Your task to perform on an android device: Search for the best selling TV on Best Buy. Image 0: 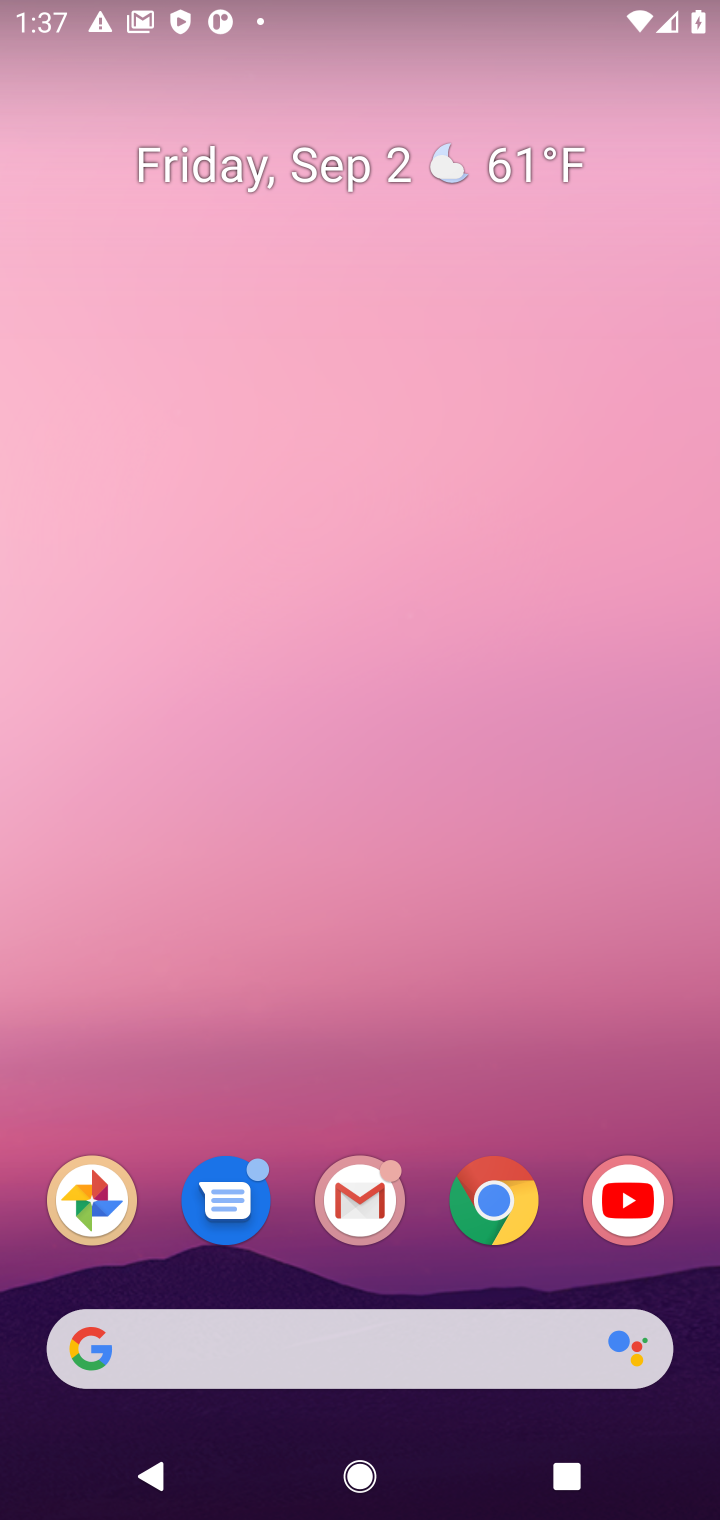
Step 0: click (502, 1206)
Your task to perform on an android device: Search for the best selling TV on Best Buy. Image 1: 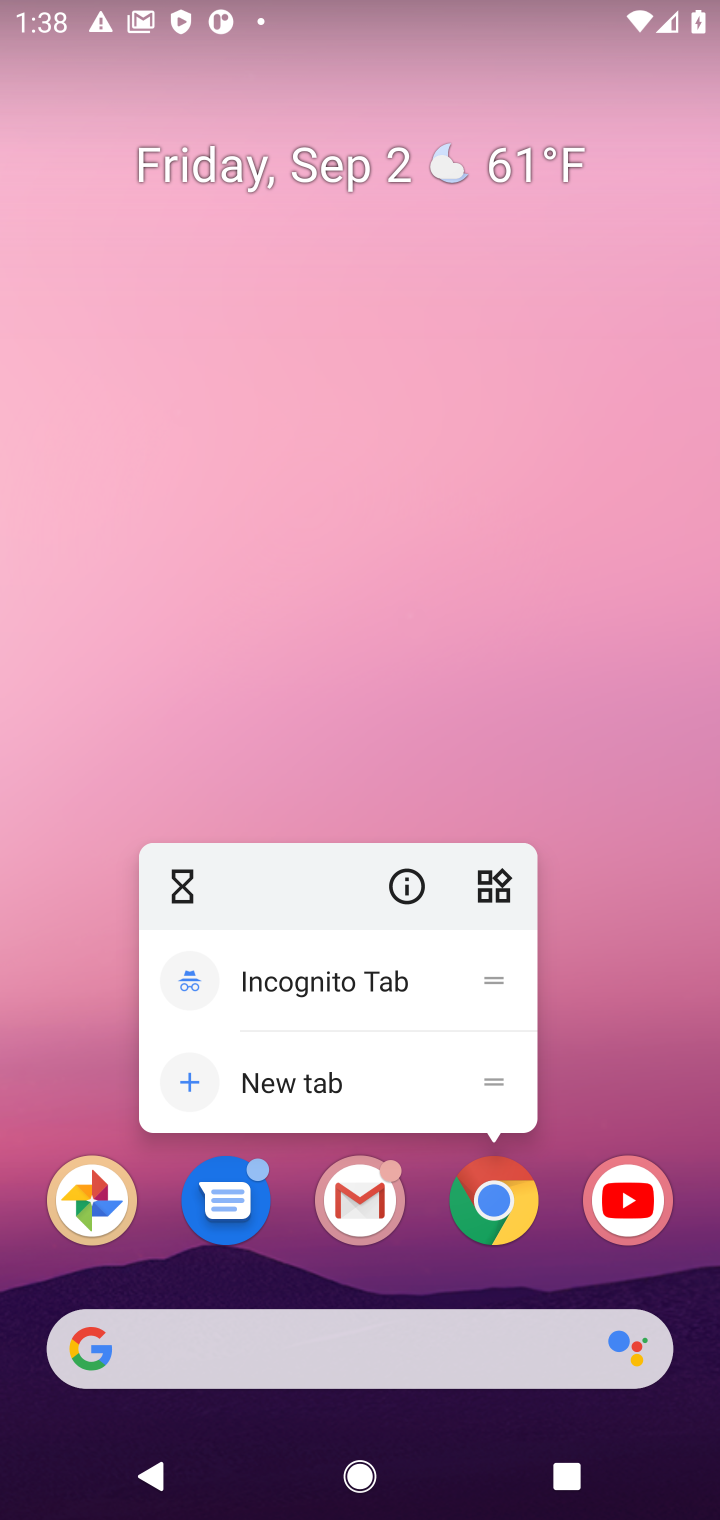
Step 1: click (497, 1213)
Your task to perform on an android device: Search for the best selling TV on Best Buy. Image 2: 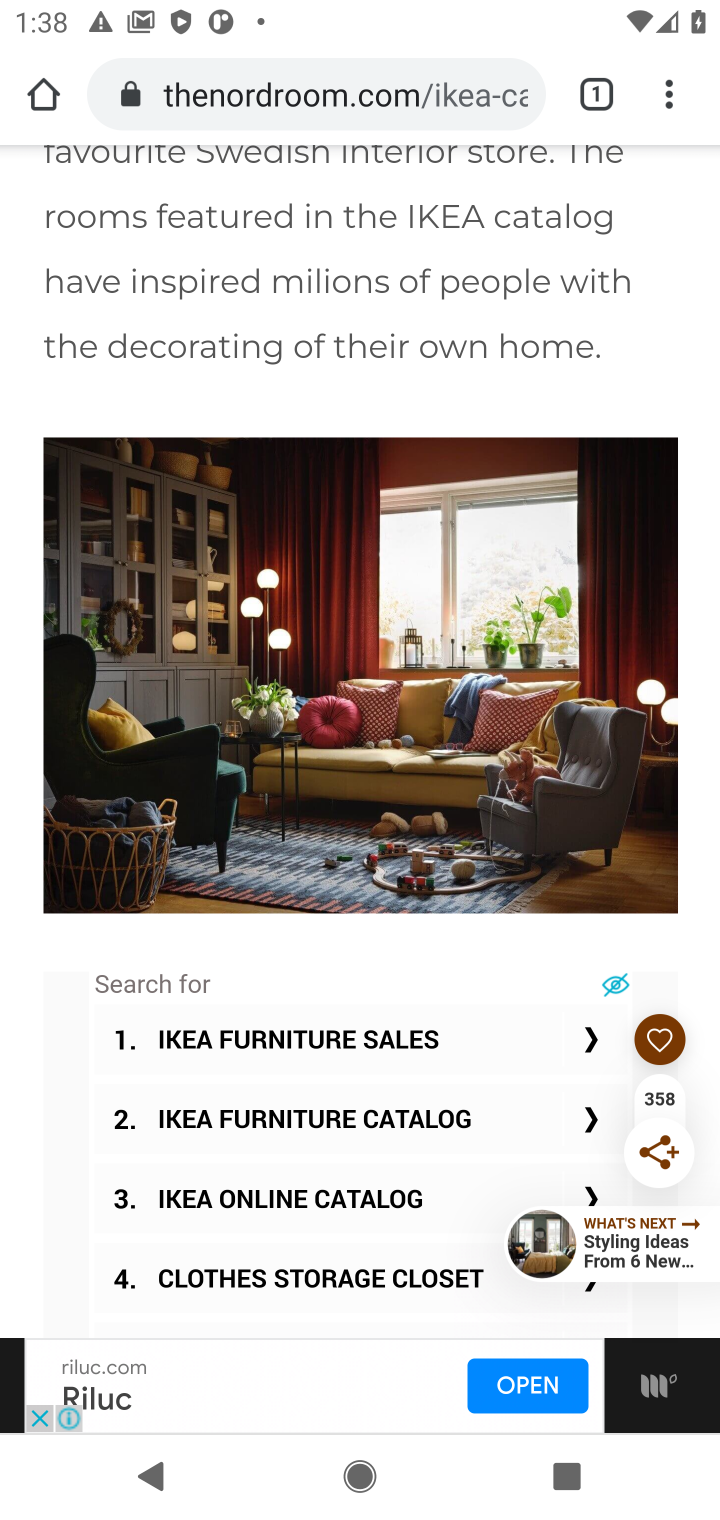
Step 2: click (401, 101)
Your task to perform on an android device: Search for the best selling TV on Best Buy. Image 3: 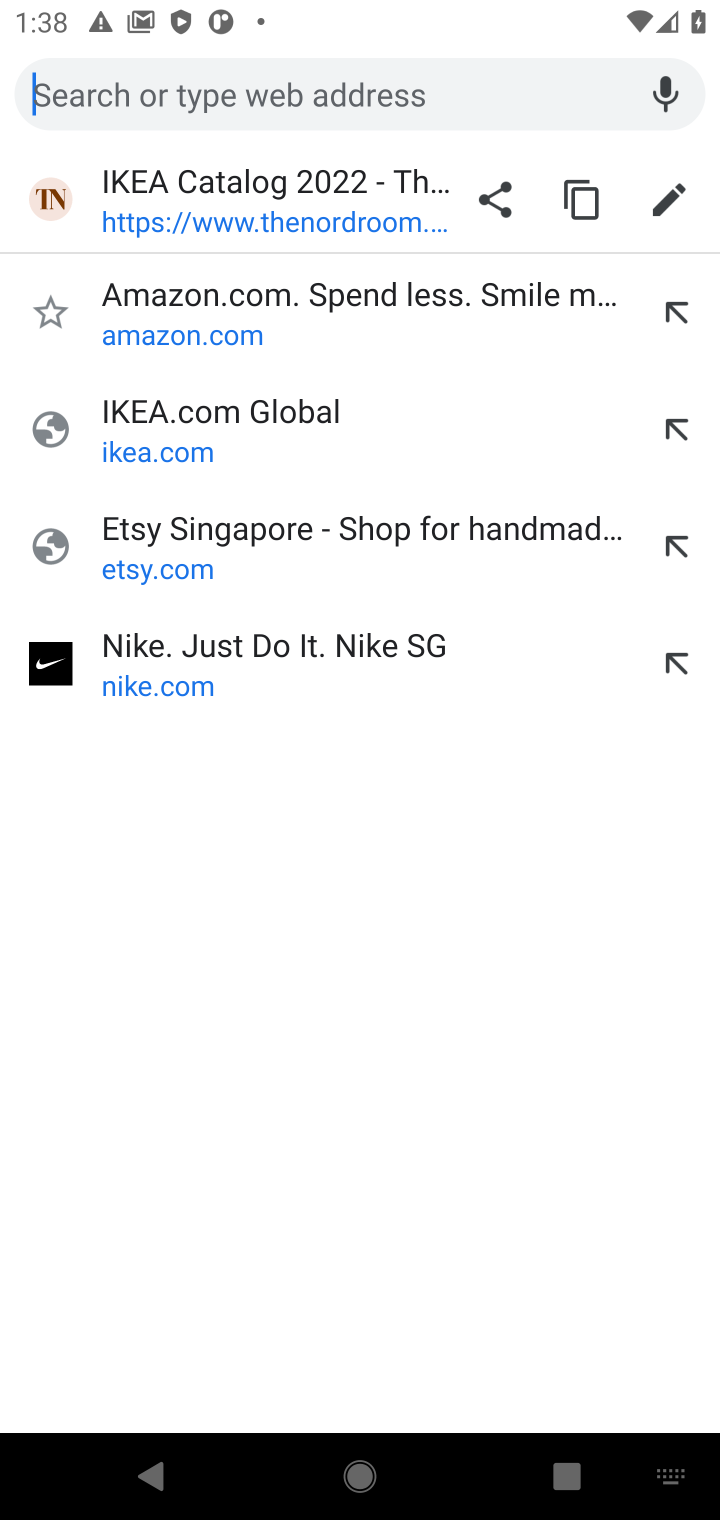
Step 3: type "Best Buy"
Your task to perform on an android device: Search for the best selling TV on Best Buy. Image 4: 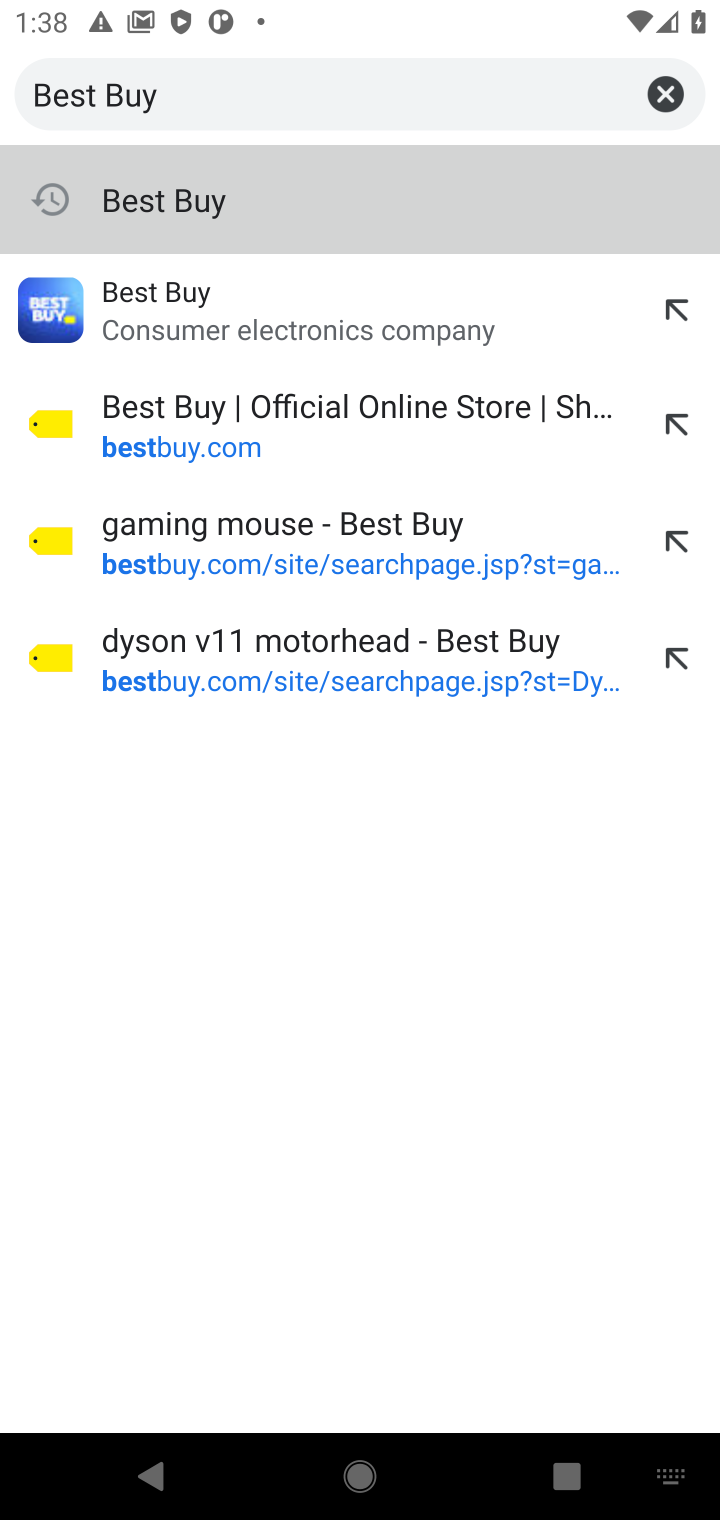
Step 4: press enter
Your task to perform on an android device: Search for the best selling TV on Best Buy. Image 5: 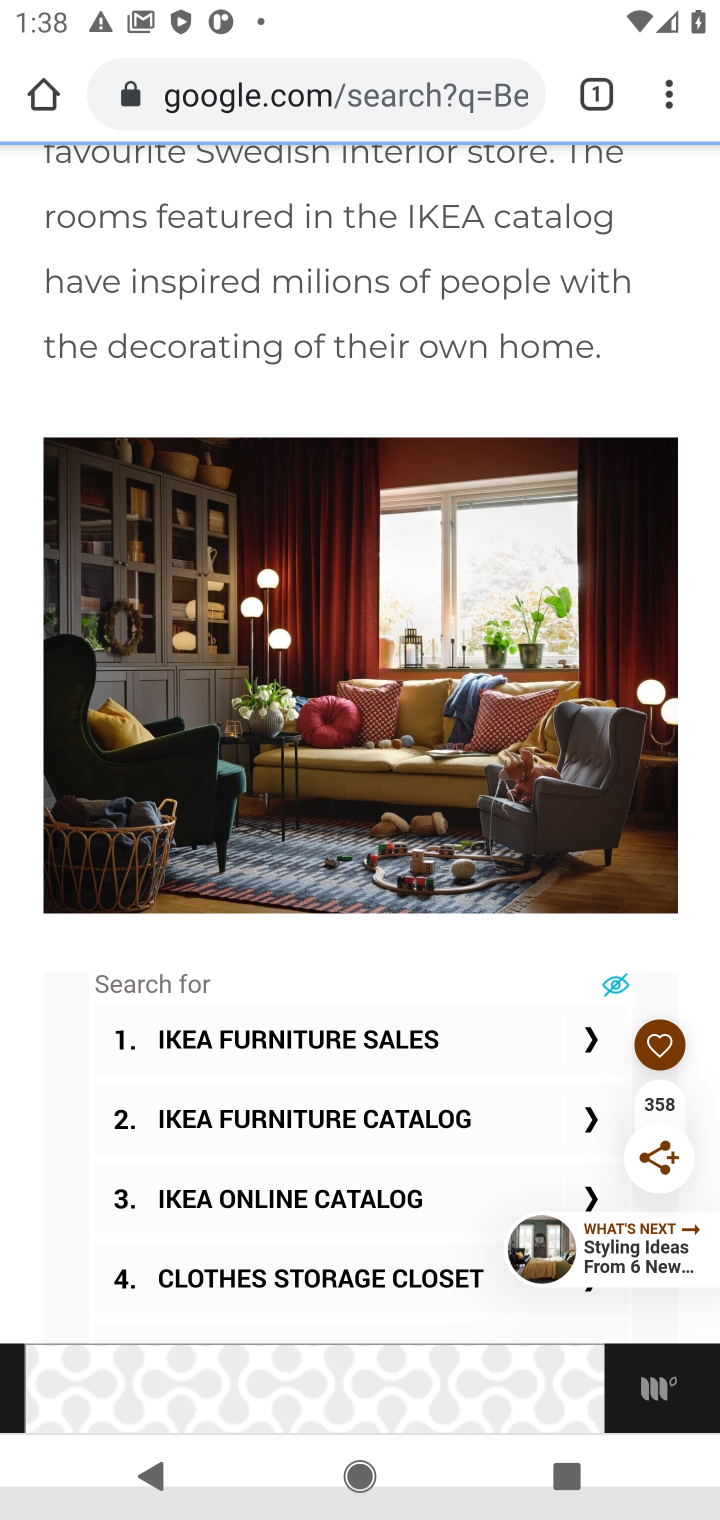
Step 5: click (286, 219)
Your task to perform on an android device: Search for the best selling TV on Best Buy. Image 6: 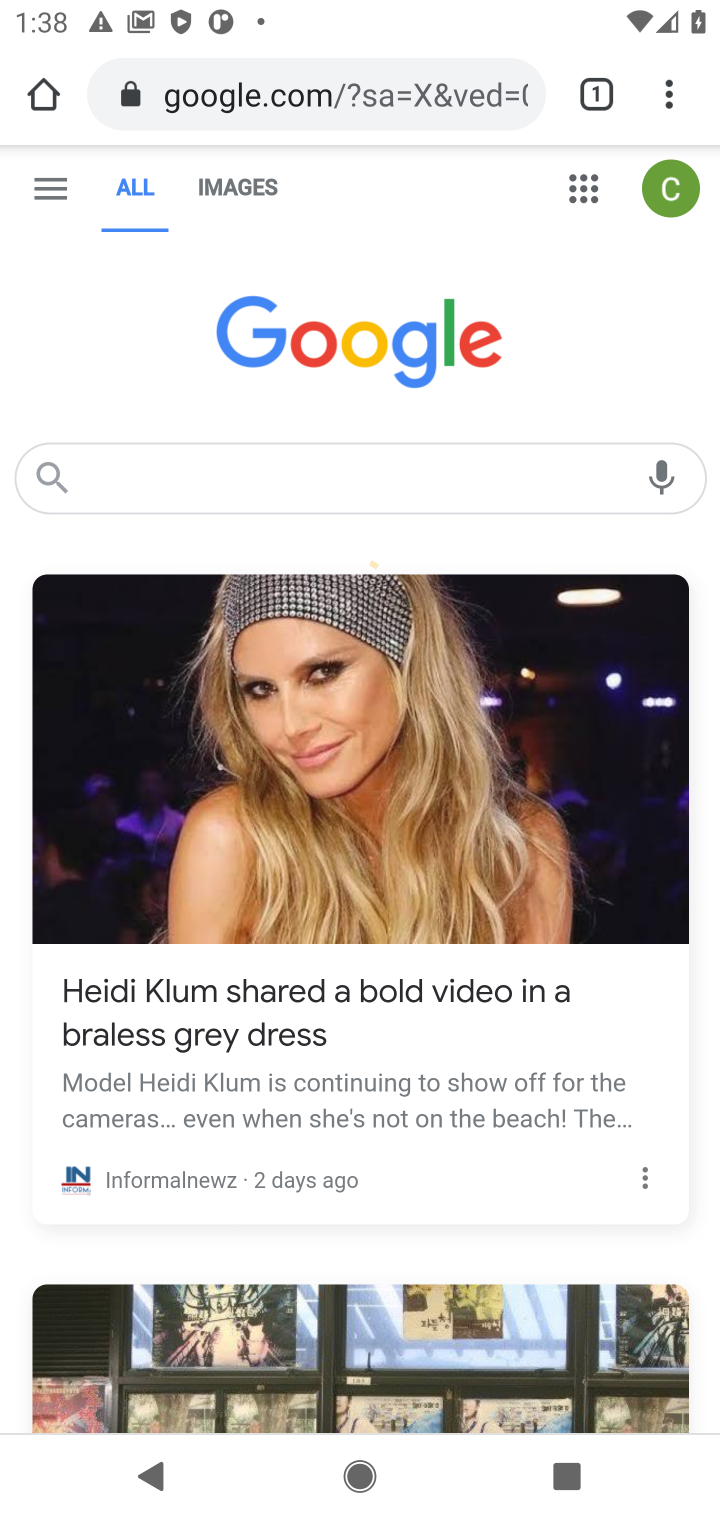
Step 6: press back button
Your task to perform on an android device: Search for the best selling TV on Best Buy. Image 7: 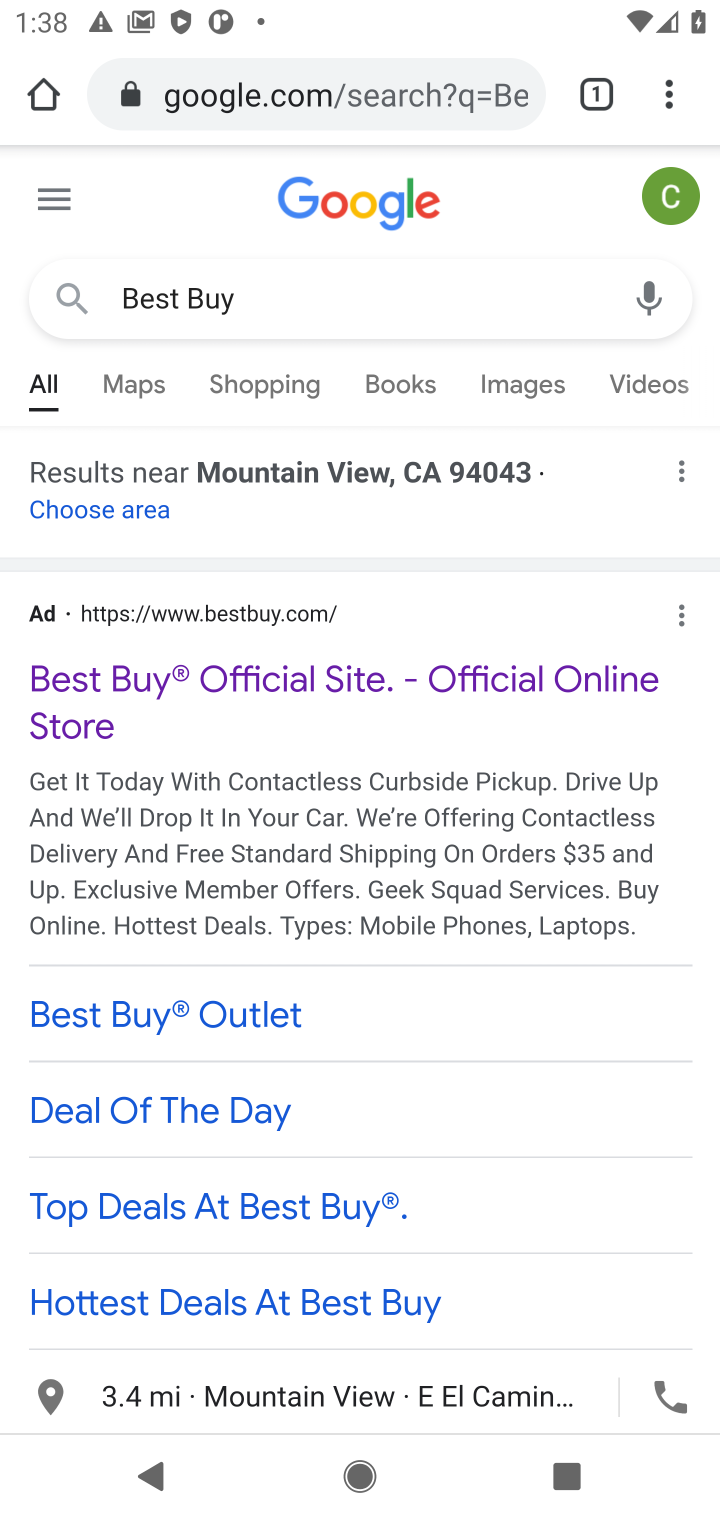
Step 7: drag from (273, 1020) to (583, 272)
Your task to perform on an android device: Search for the best selling TV on Best Buy. Image 8: 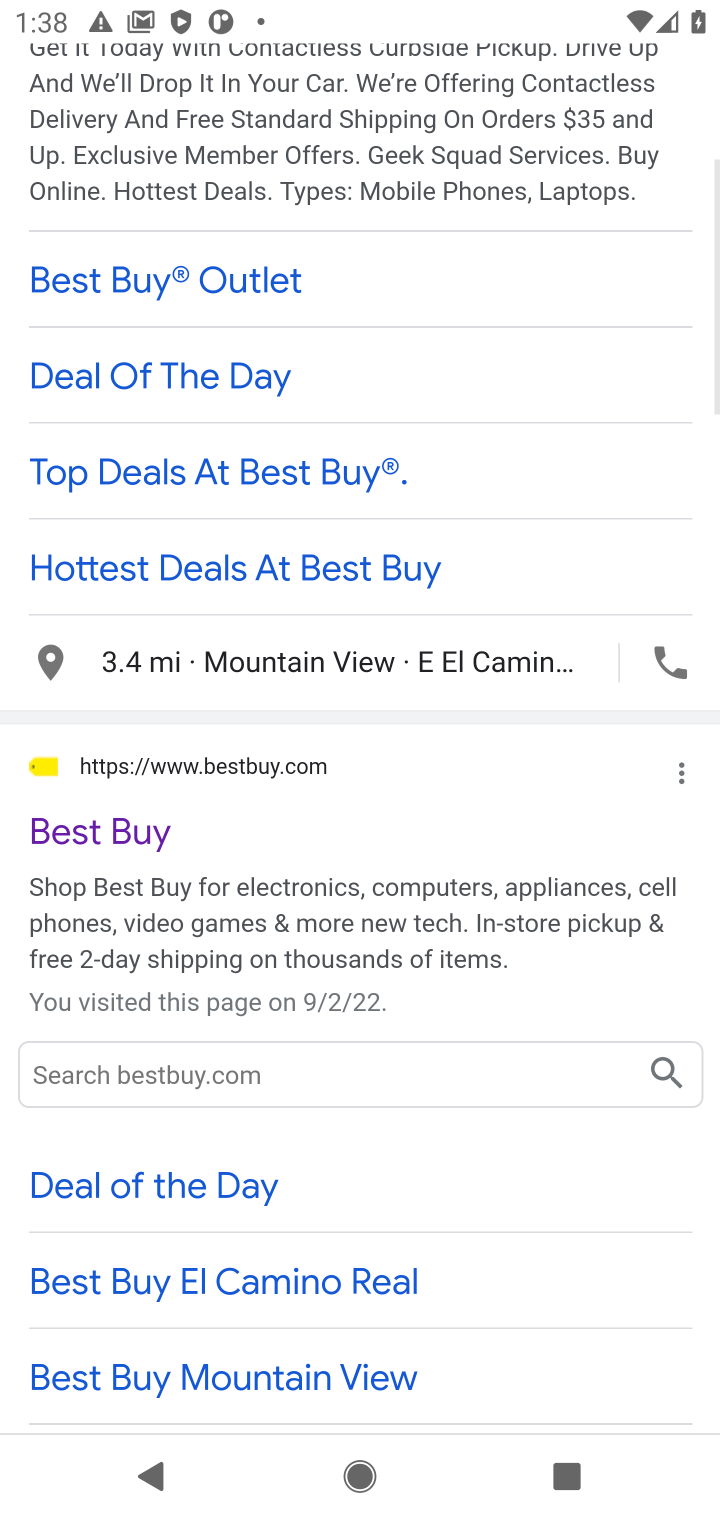
Step 8: click (118, 827)
Your task to perform on an android device: Search for the best selling TV on Best Buy. Image 9: 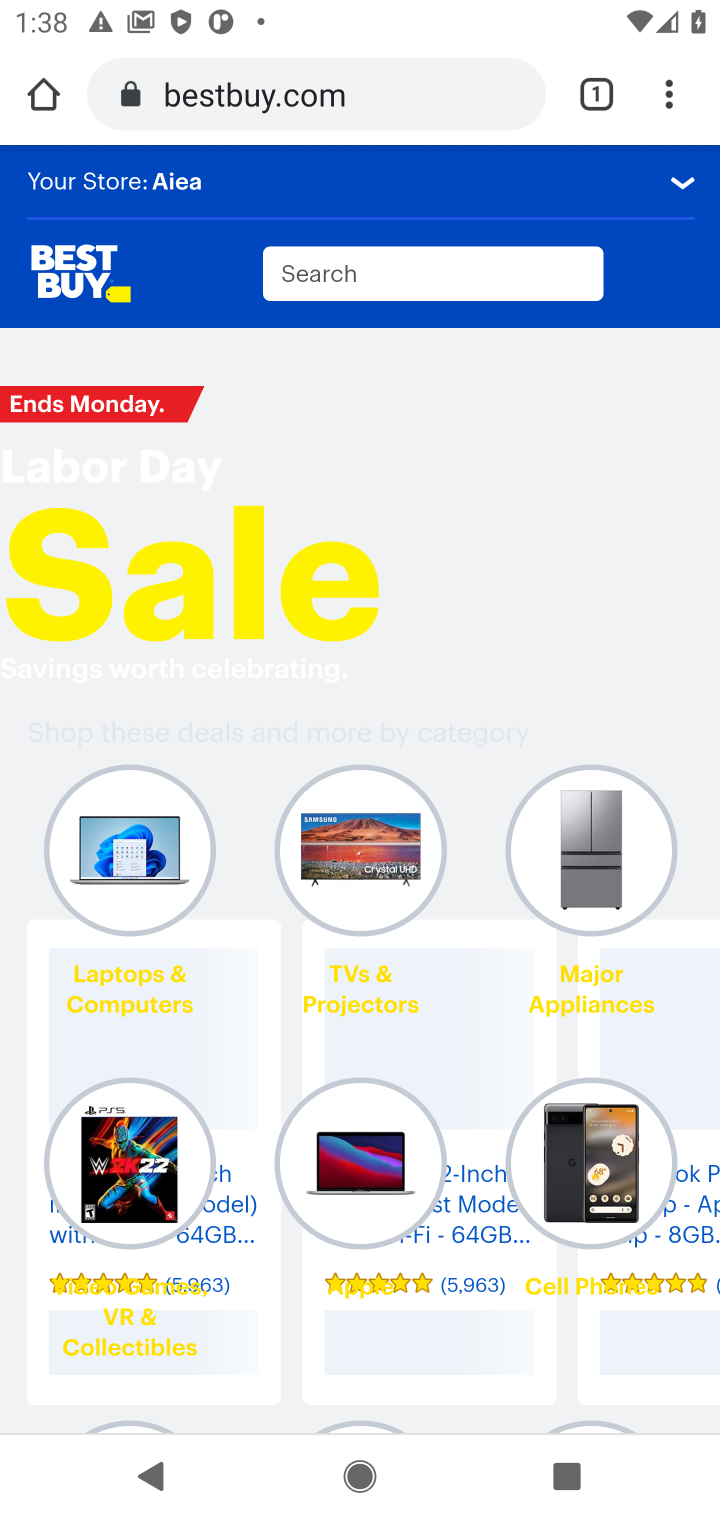
Step 9: click (453, 283)
Your task to perform on an android device: Search for the best selling TV on Best Buy. Image 10: 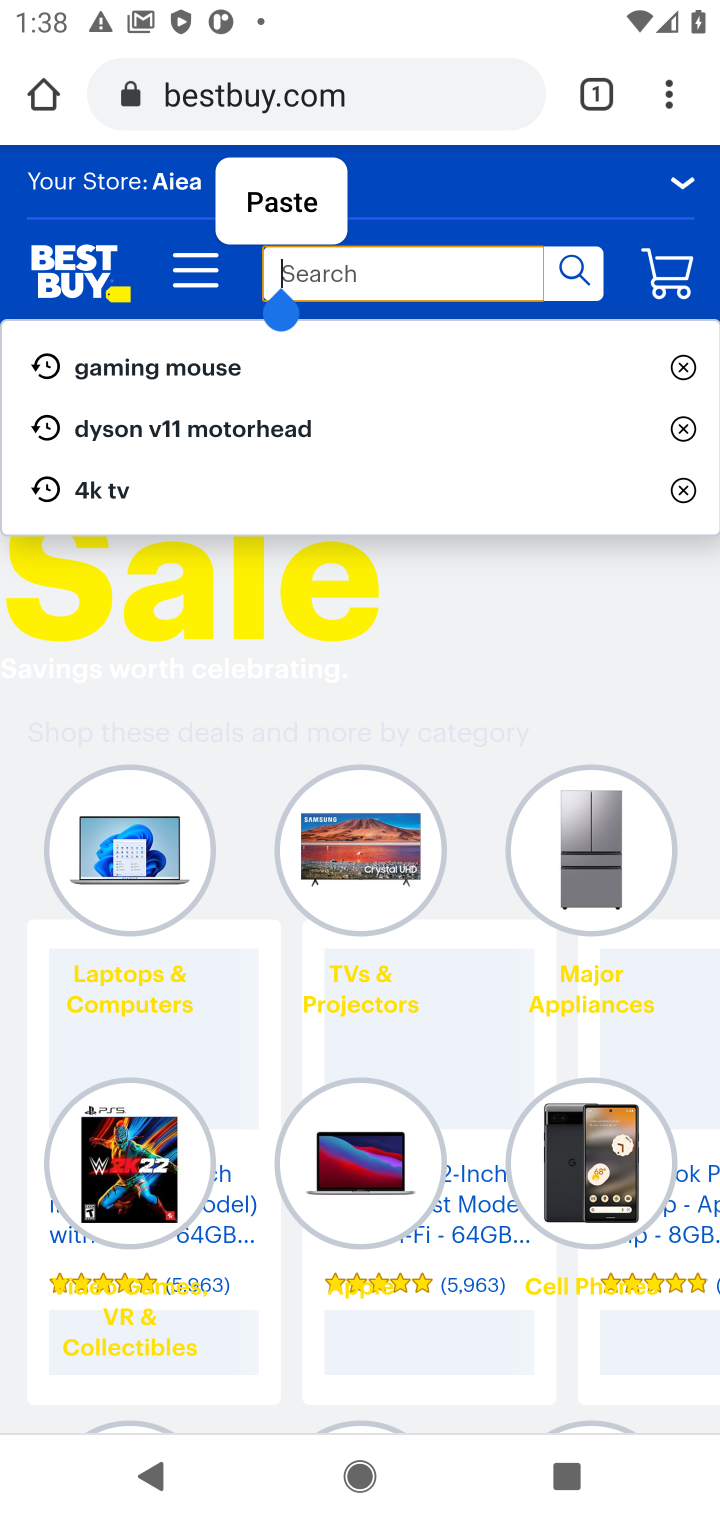
Step 10: click (458, 274)
Your task to perform on an android device: Search for the best selling TV on Best Buy. Image 11: 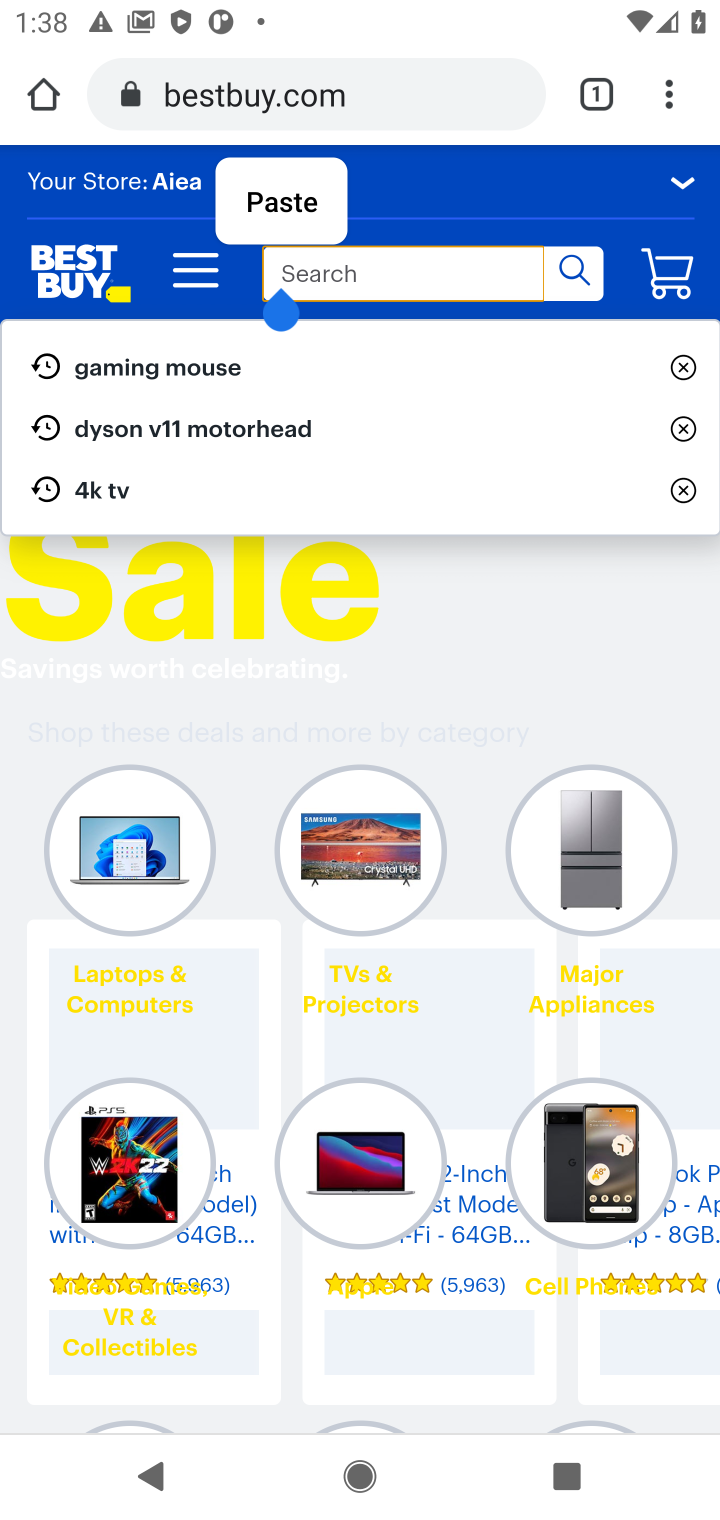
Step 11: click (462, 270)
Your task to perform on an android device: Search for the best selling TV on Best Buy. Image 12: 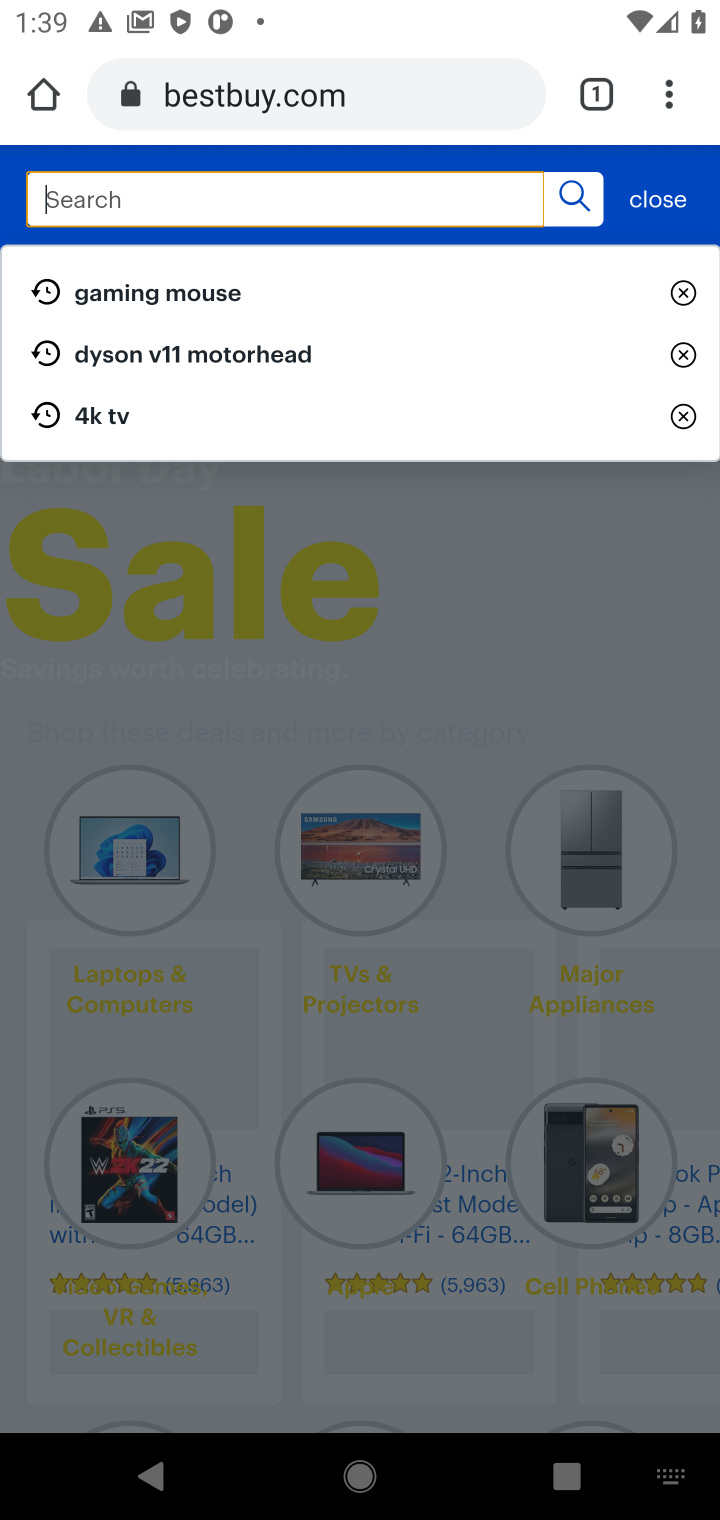
Step 12: type " TV"
Your task to perform on an android device: Search for the best selling TV on Best Buy. Image 13: 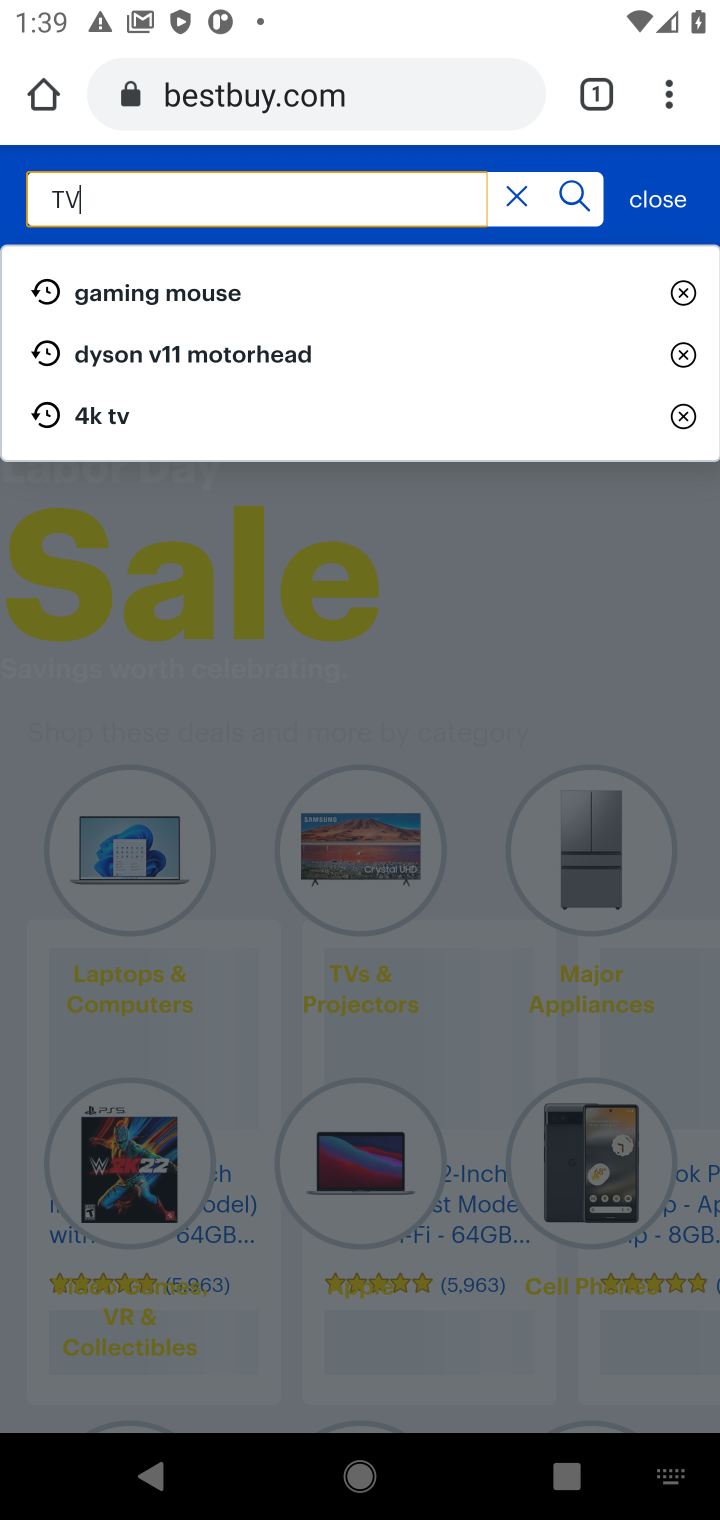
Step 13: press enter
Your task to perform on an android device: Search for the best selling TV on Best Buy. Image 14: 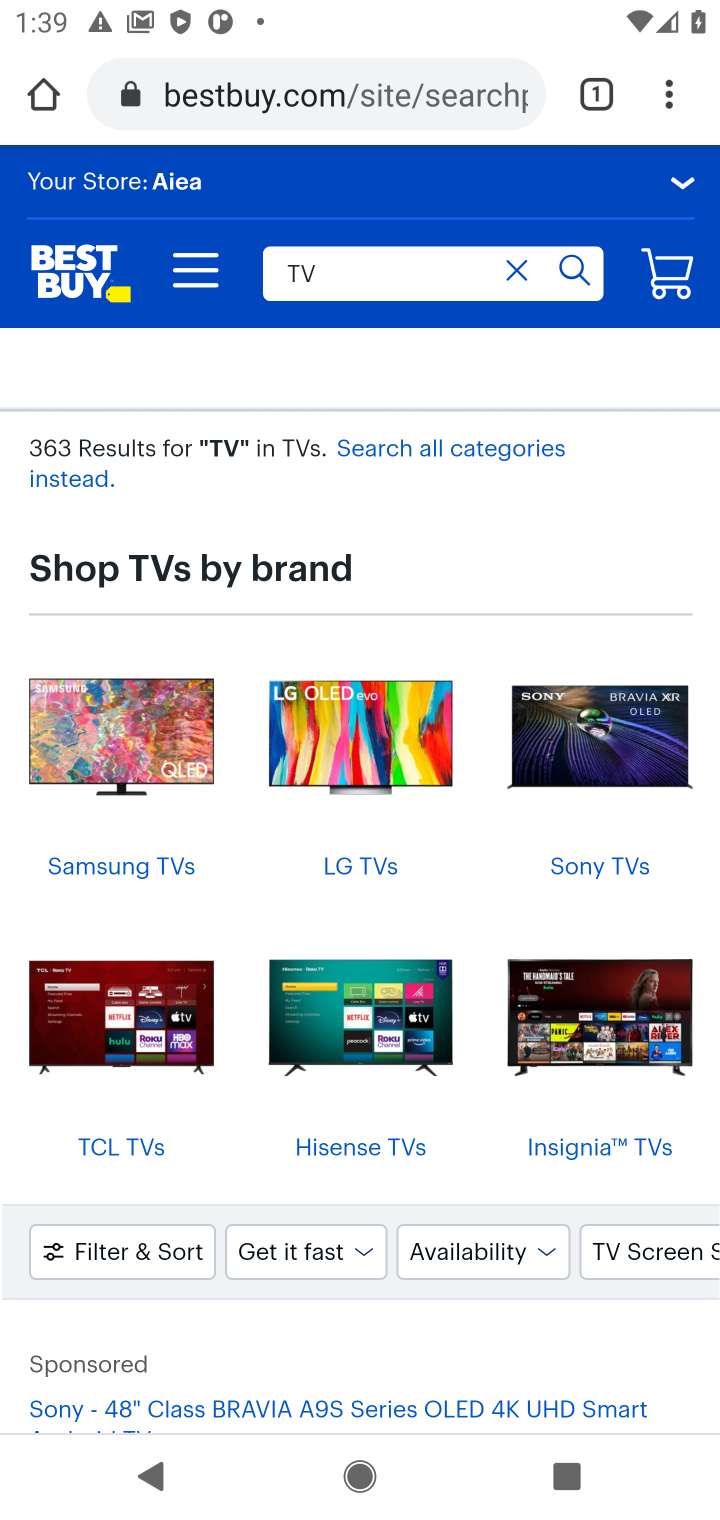
Step 14: drag from (419, 899) to (715, 291)
Your task to perform on an android device: Search for the best selling TV on Best Buy. Image 15: 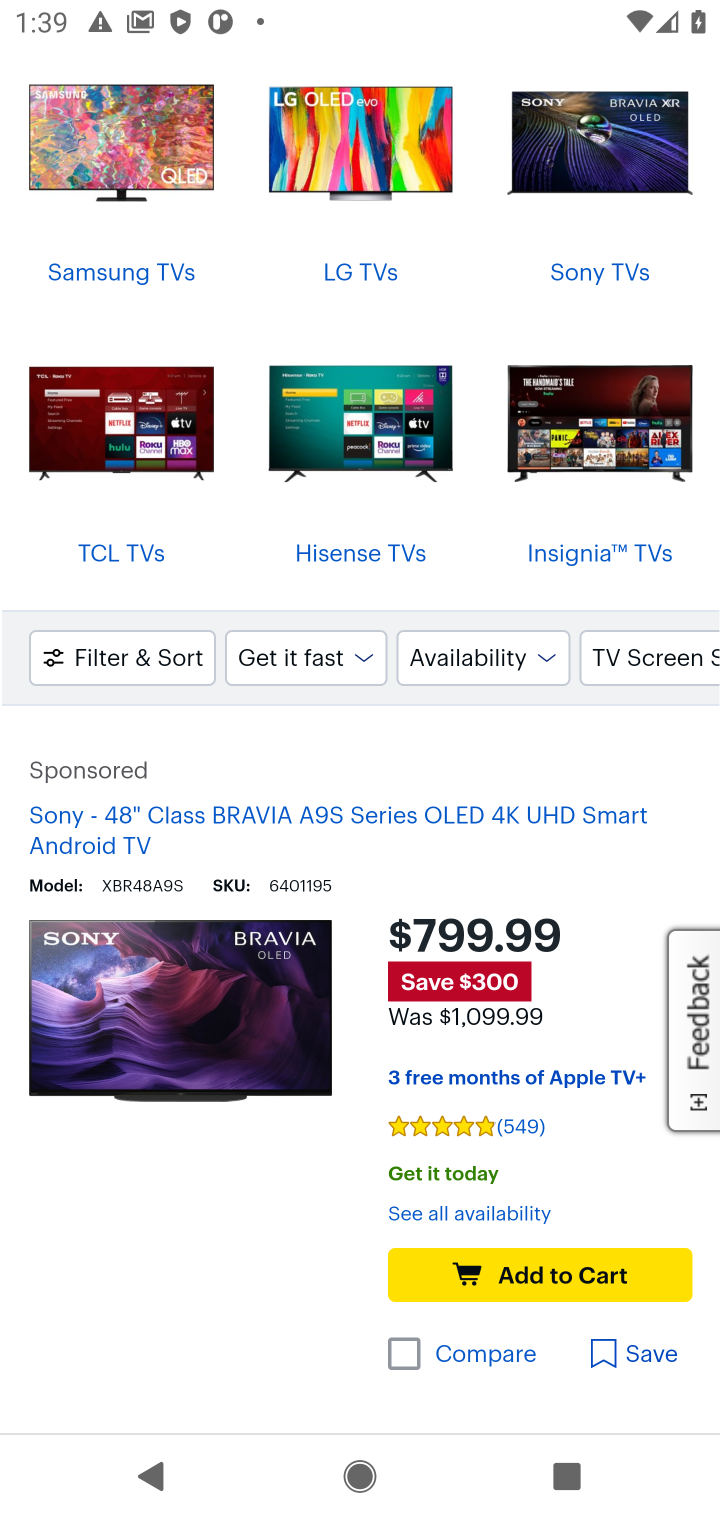
Step 15: drag from (429, 985) to (670, 511)
Your task to perform on an android device: Search for the best selling TV on Best Buy. Image 16: 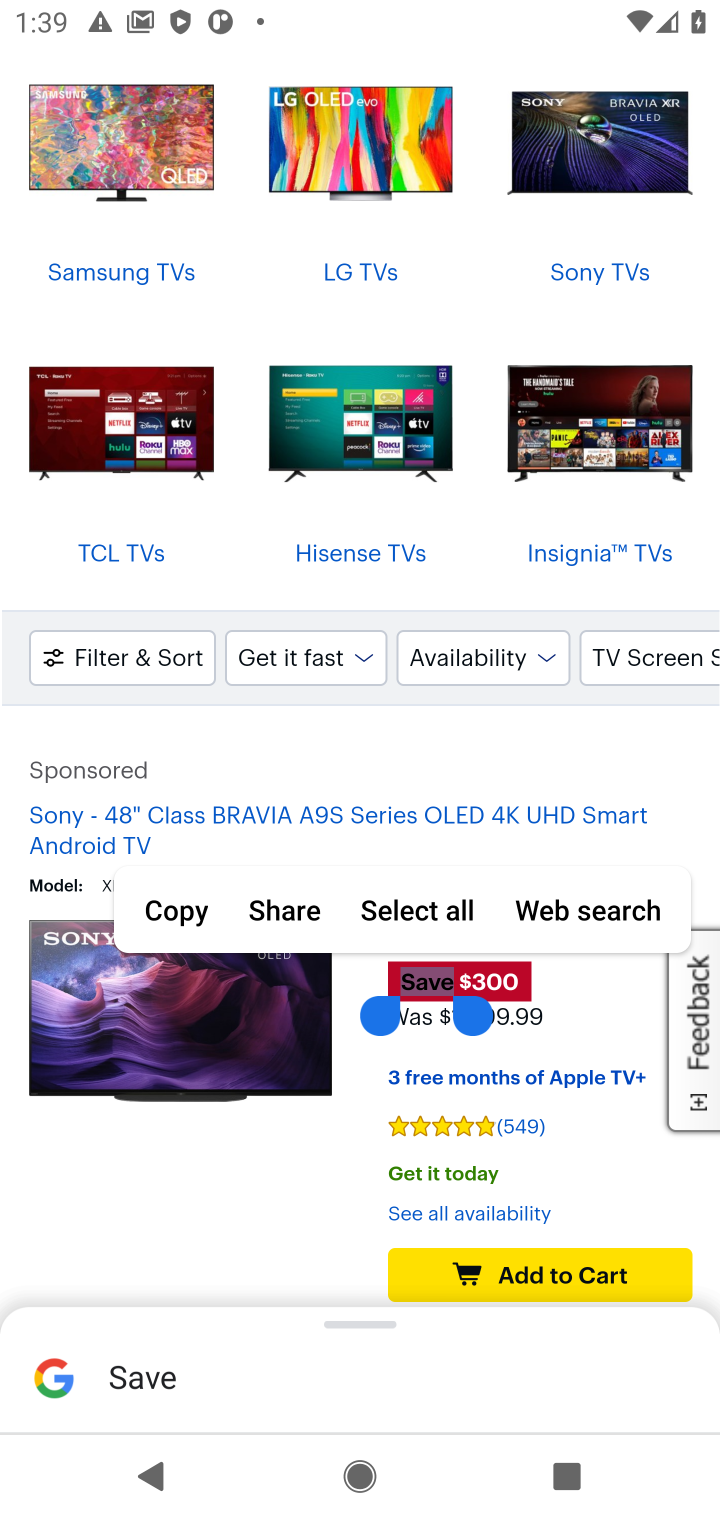
Step 16: drag from (557, 1197) to (686, 438)
Your task to perform on an android device: Search for the best selling TV on Best Buy. Image 17: 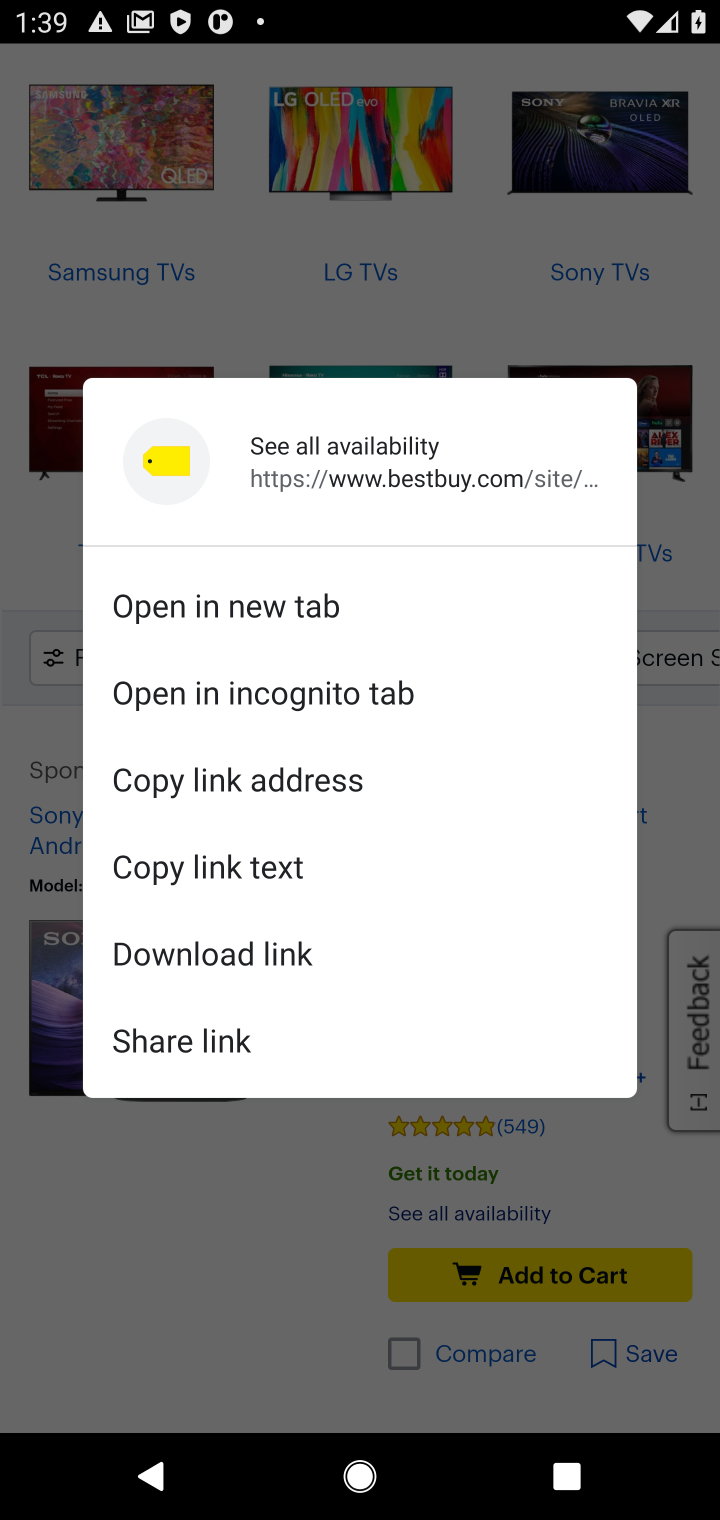
Step 17: click (689, 747)
Your task to perform on an android device: Search for the best selling TV on Best Buy. Image 18: 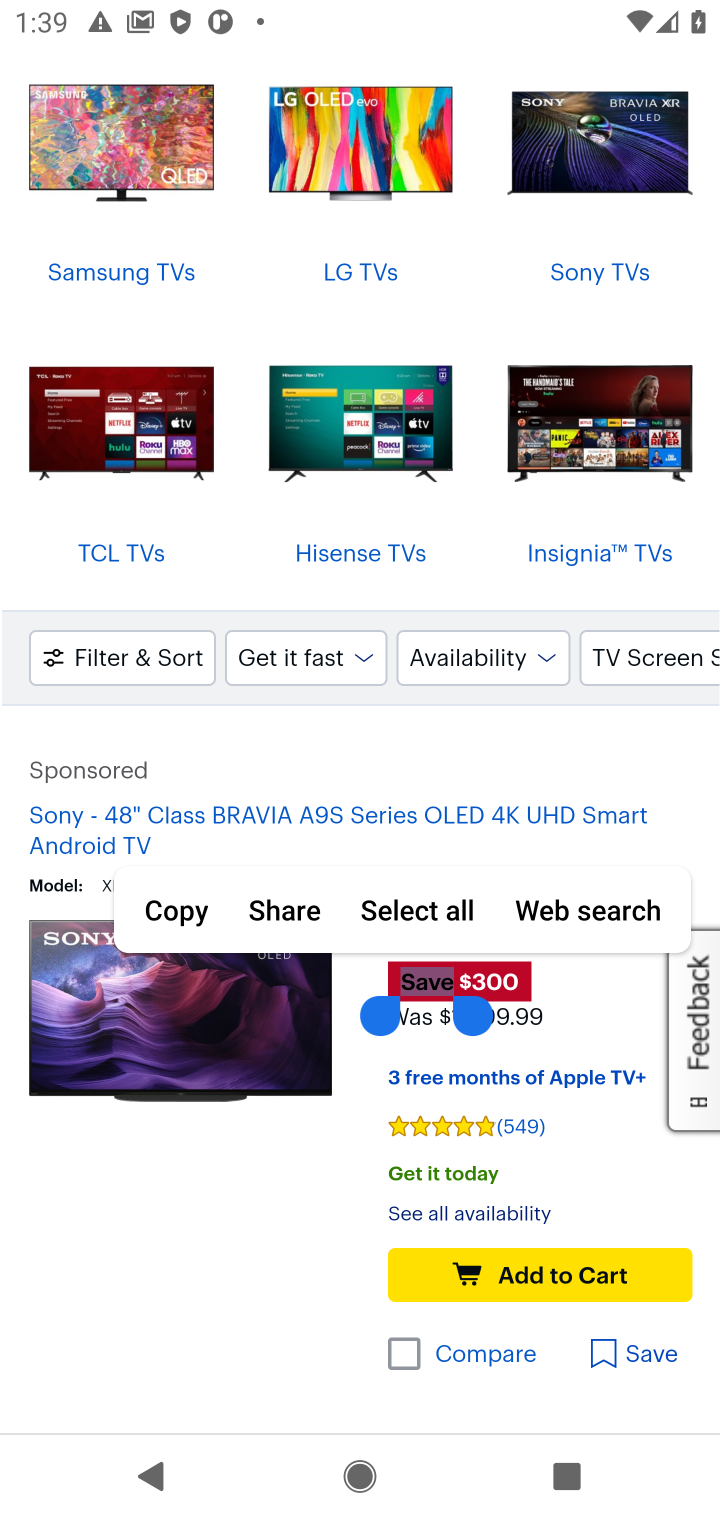
Step 18: task complete